Your task to perform on an android device: Go to Maps Image 0: 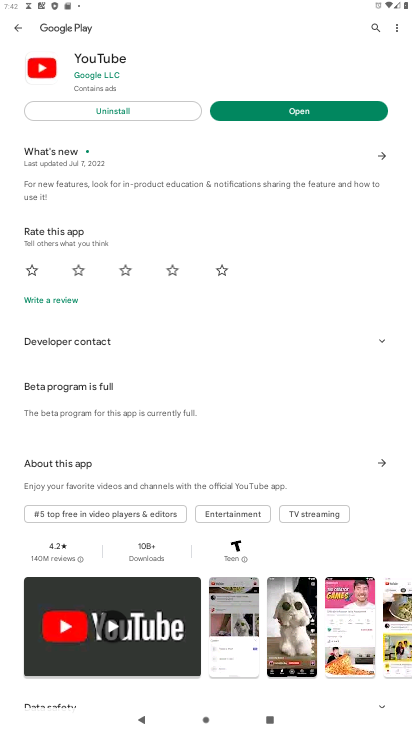
Step 0: press home button
Your task to perform on an android device: Go to Maps Image 1: 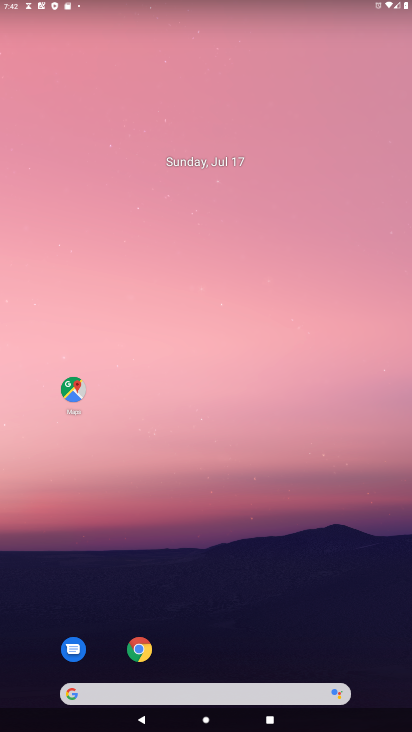
Step 1: click (72, 383)
Your task to perform on an android device: Go to Maps Image 2: 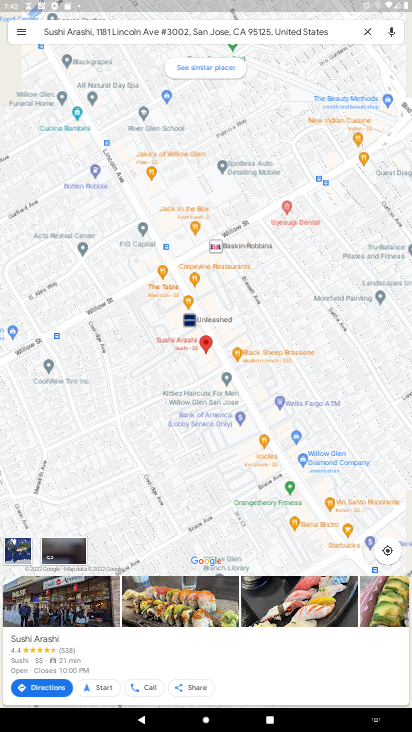
Step 2: task complete